Your task to perform on an android device: Go to wifi settings Image 0: 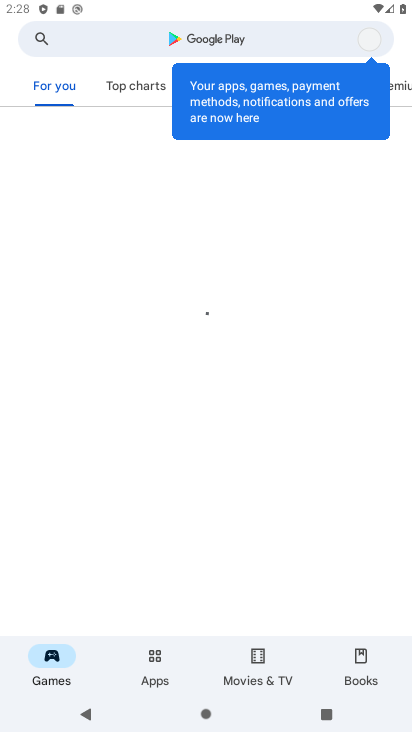
Step 0: press home button
Your task to perform on an android device: Go to wifi settings Image 1: 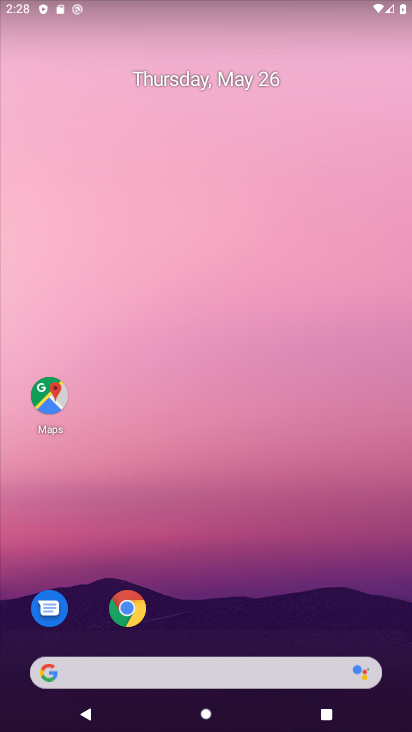
Step 1: drag from (186, 642) to (307, 103)
Your task to perform on an android device: Go to wifi settings Image 2: 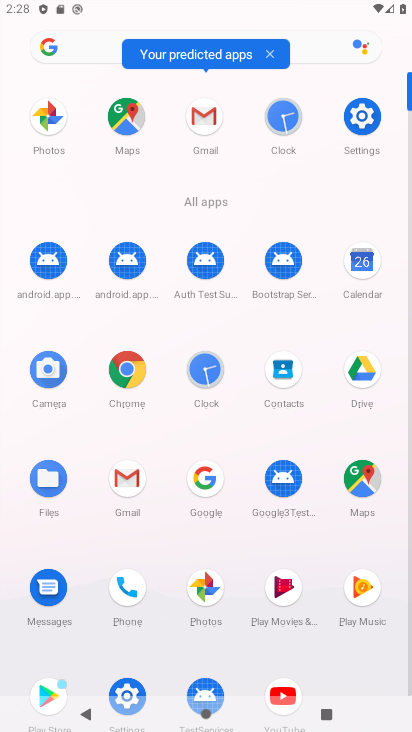
Step 2: click (131, 682)
Your task to perform on an android device: Go to wifi settings Image 3: 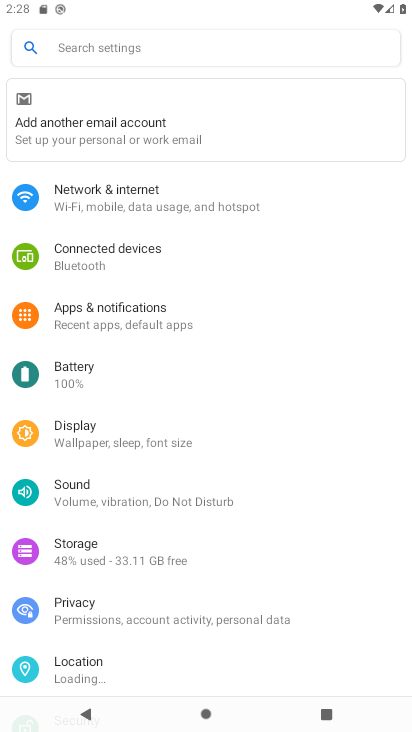
Step 3: click (182, 209)
Your task to perform on an android device: Go to wifi settings Image 4: 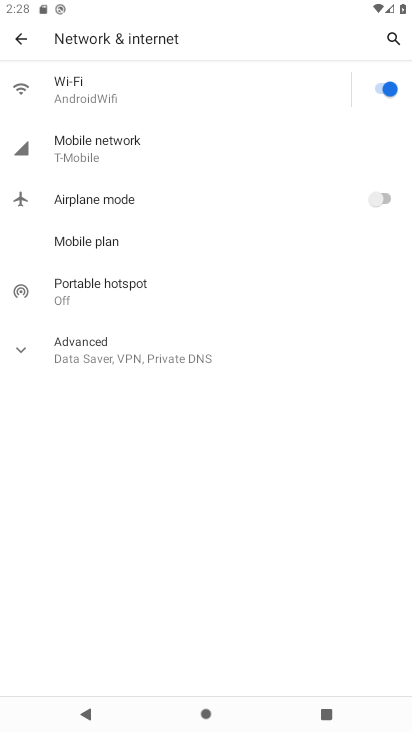
Step 4: click (172, 81)
Your task to perform on an android device: Go to wifi settings Image 5: 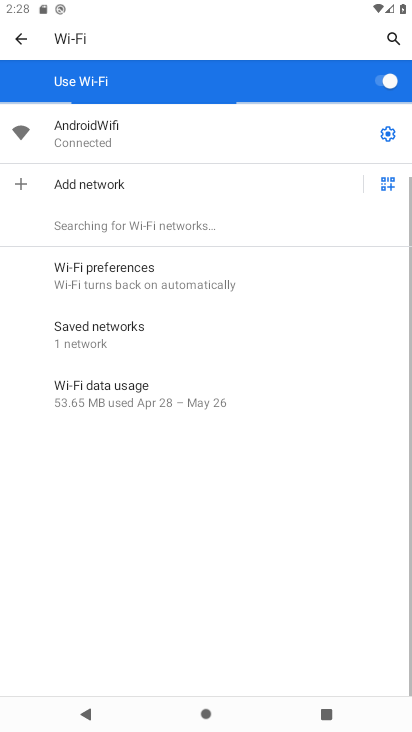
Step 5: task complete